Your task to perform on an android device: change the clock display to show seconds Image 0: 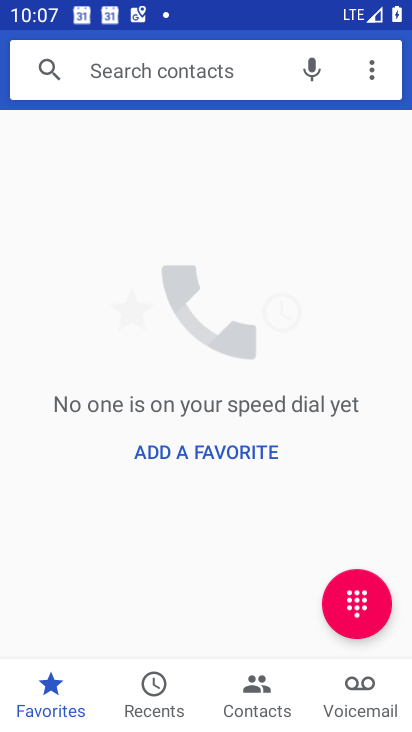
Step 0: press home button
Your task to perform on an android device: change the clock display to show seconds Image 1: 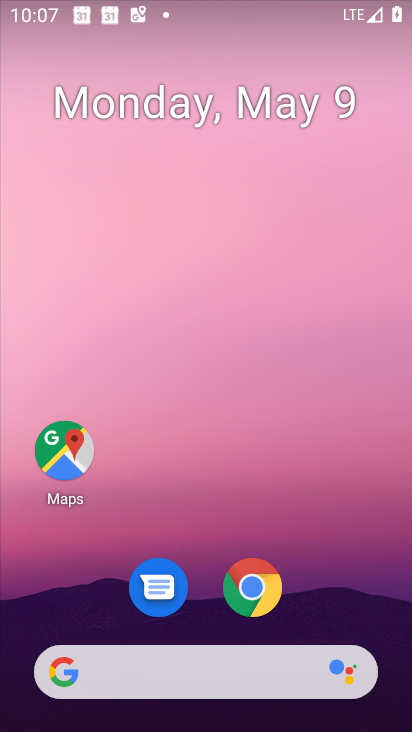
Step 1: drag from (201, 627) to (200, 266)
Your task to perform on an android device: change the clock display to show seconds Image 2: 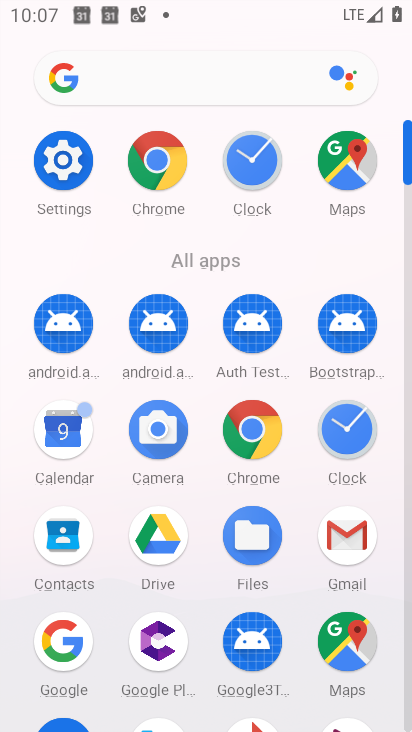
Step 2: click (263, 166)
Your task to perform on an android device: change the clock display to show seconds Image 3: 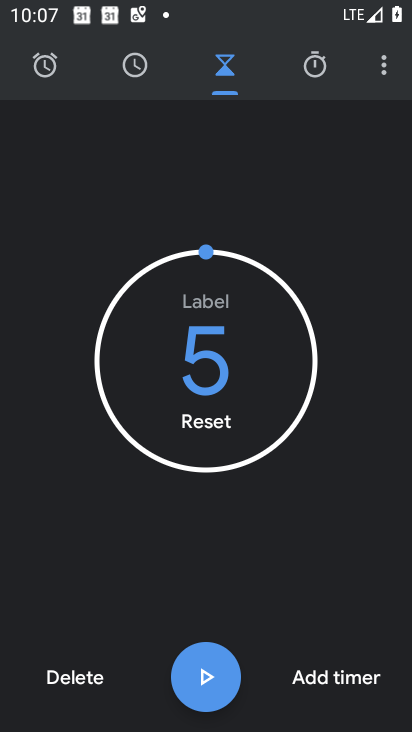
Step 3: click (373, 60)
Your task to perform on an android device: change the clock display to show seconds Image 4: 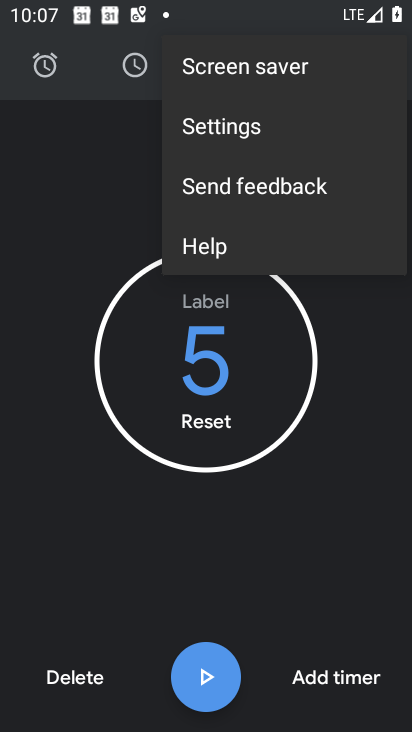
Step 4: click (256, 134)
Your task to perform on an android device: change the clock display to show seconds Image 5: 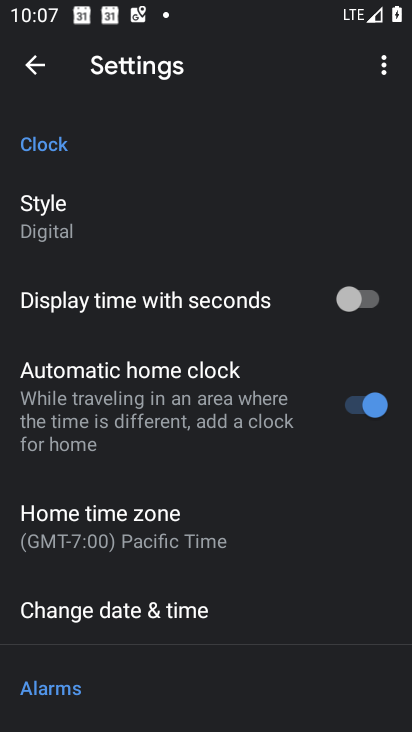
Step 5: click (371, 302)
Your task to perform on an android device: change the clock display to show seconds Image 6: 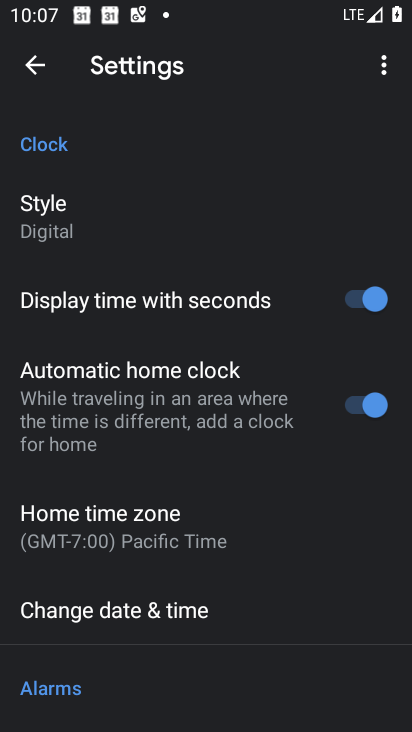
Step 6: task complete